Your task to perform on an android device: change alarm snooze length Image 0: 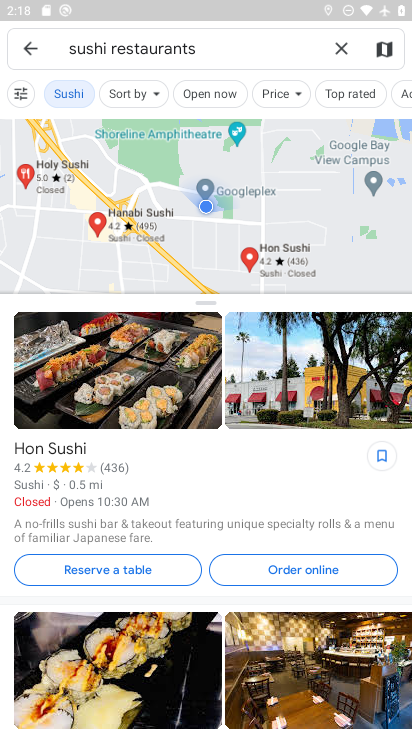
Step 0: press home button
Your task to perform on an android device: change alarm snooze length Image 1: 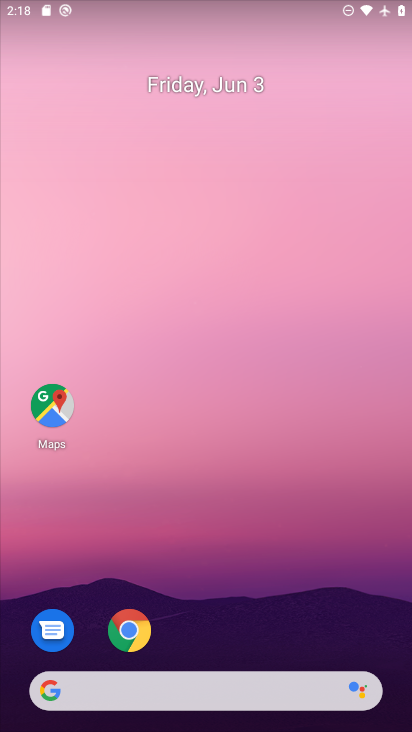
Step 1: drag from (219, 726) to (220, 81)
Your task to perform on an android device: change alarm snooze length Image 2: 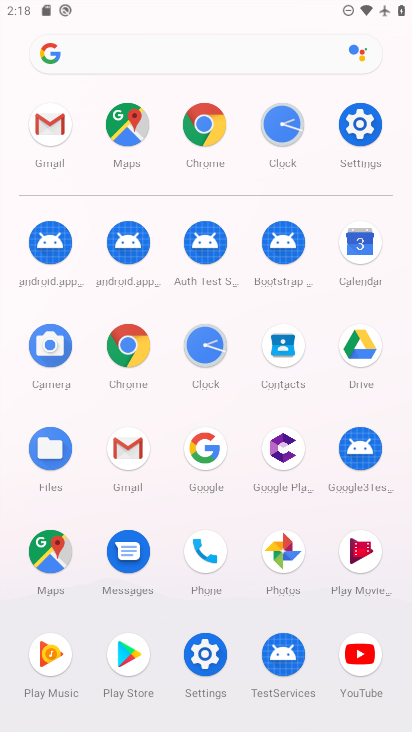
Step 2: click (202, 345)
Your task to perform on an android device: change alarm snooze length Image 3: 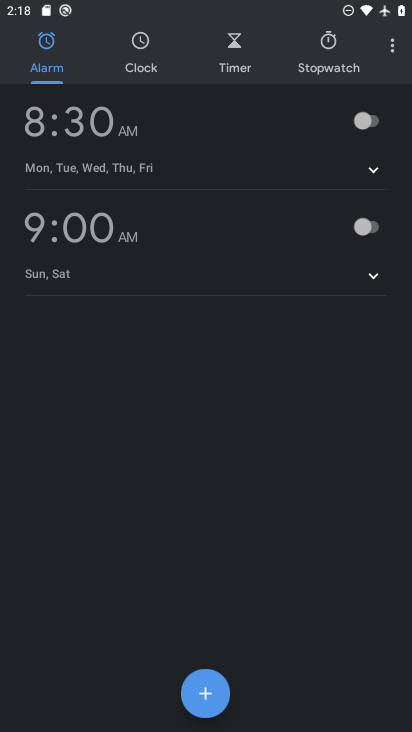
Step 3: click (394, 54)
Your task to perform on an android device: change alarm snooze length Image 4: 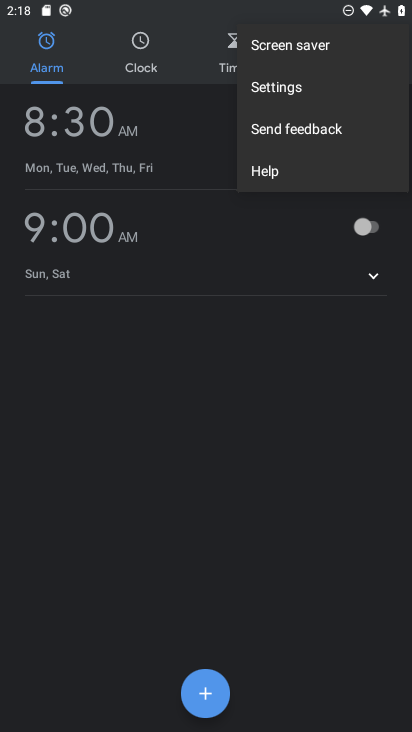
Step 4: click (278, 88)
Your task to perform on an android device: change alarm snooze length Image 5: 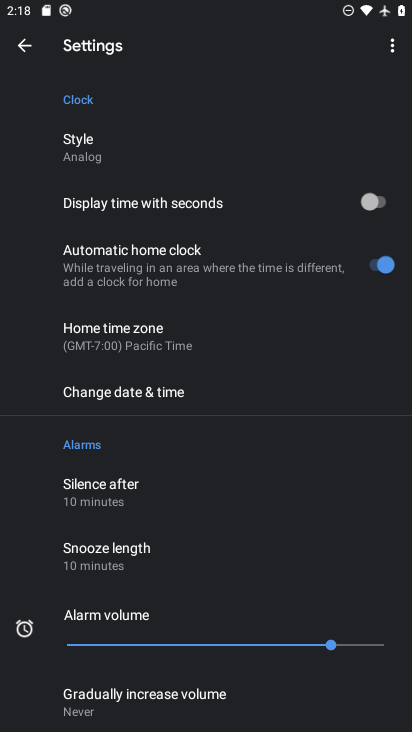
Step 5: drag from (247, 596) to (233, 256)
Your task to perform on an android device: change alarm snooze length Image 6: 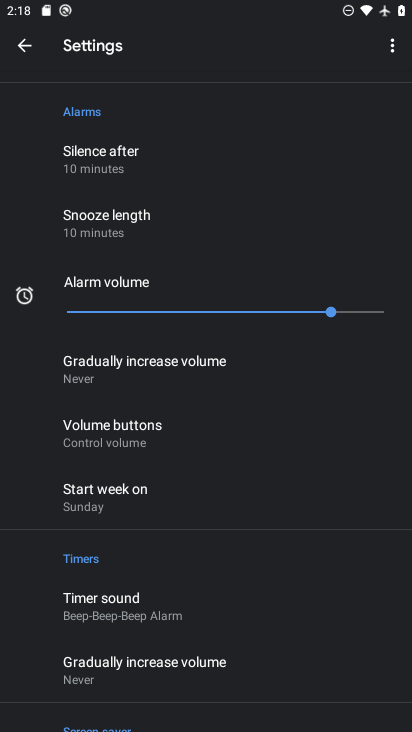
Step 6: drag from (175, 699) to (181, 641)
Your task to perform on an android device: change alarm snooze length Image 7: 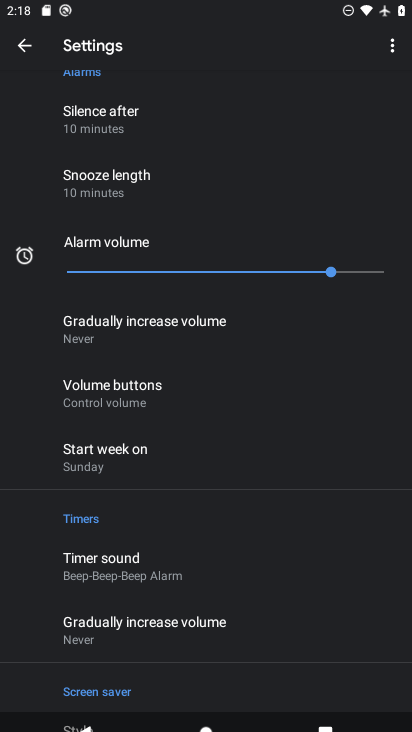
Step 7: click (104, 190)
Your task to perform on an android device: change alarm snooze length Image 8: 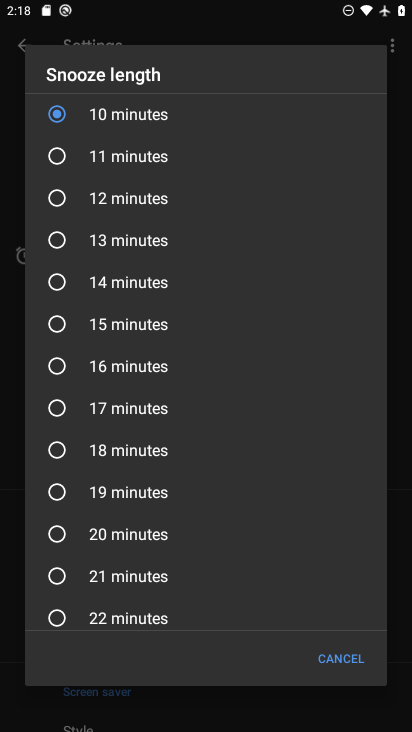
Step 8: click (62, 411)
Your task to perform on an android device: change alarm snooze length Image 9: 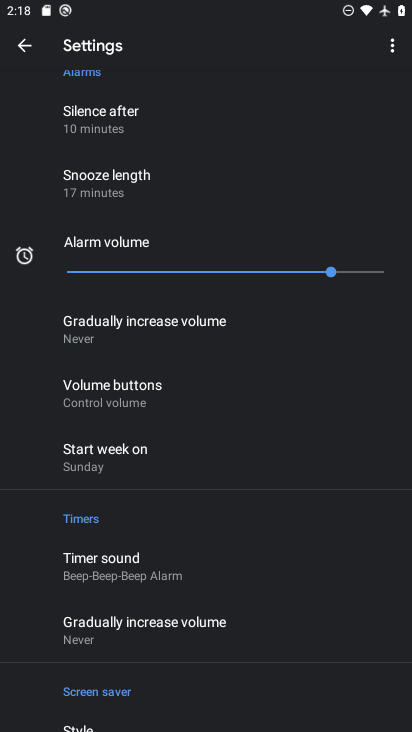
Step 9: task complete